Your task to perform on an android device: What's the weather going to be this weekend? Image 0: 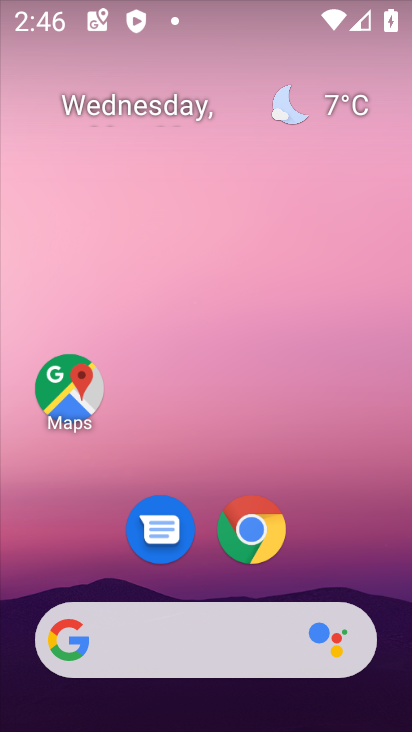
Step 0: click (142, 665)
Your task to perform on an android device: What's the weather going to be this weekend? Image 1: 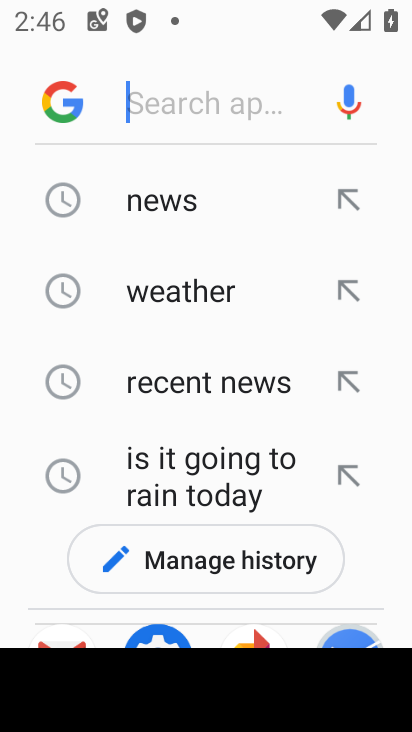
Step 1: click (176, 296)
Your task to perform on an android device: What's the weather going to be this weekend? Image 2: 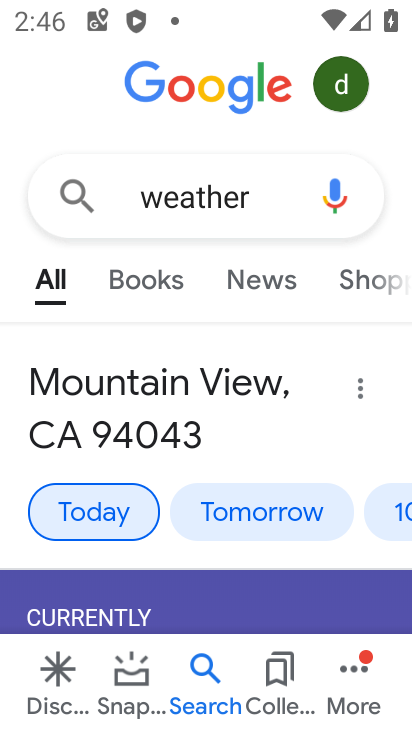
Step 2: click (382, 527)
Your task to perform on an android device: What's the weather going to be this weekend? Image 3: 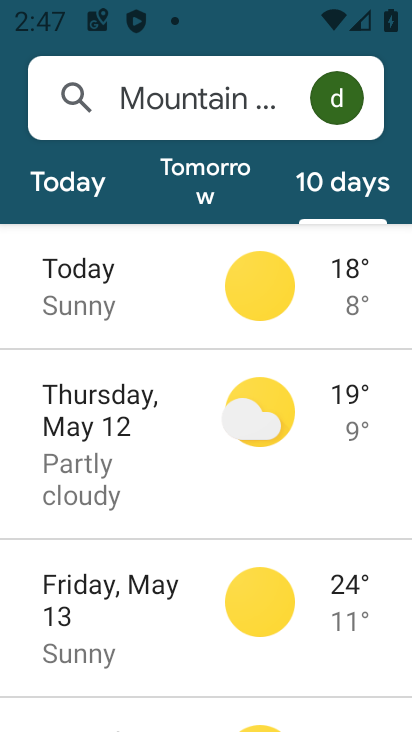
Step 3: task complete